Your task to perform on an android device: Search for hotels in Miami Image 0: 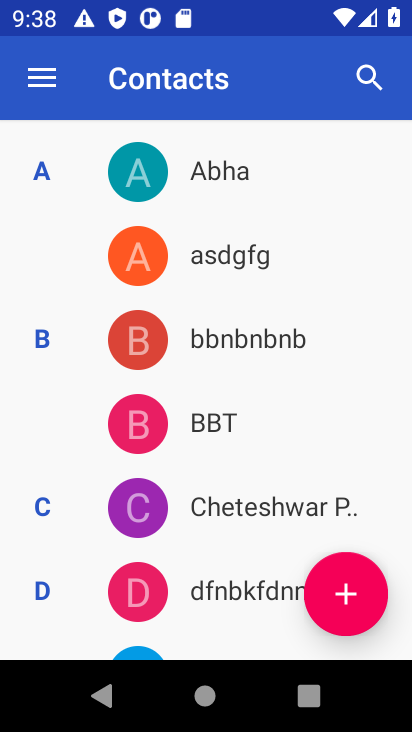
Step 0: press home button
Your task to perform on an android device: Search for hotels in Miami Image 1: 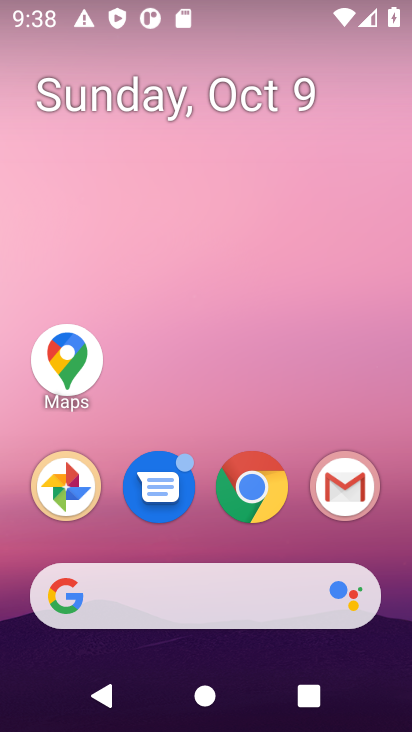
Step 1: drag from (198, 584) to (188, 131)
Your task to perform on an android device: Search for hotels in Miami Image 2: 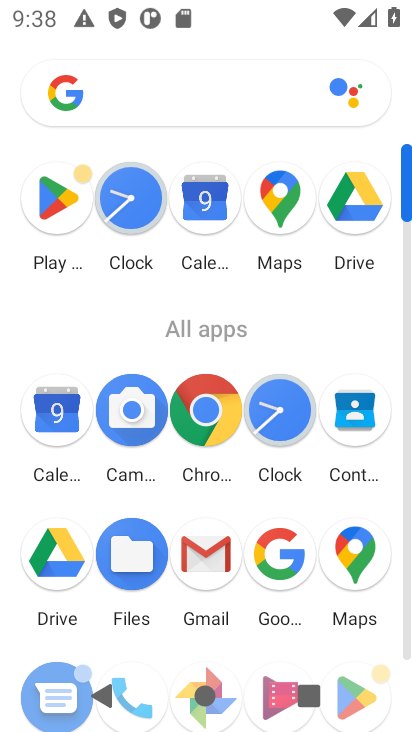
Step 2: click (295, 539)
Your task to perform on an android device: Search for hotels in Miami Image 3: 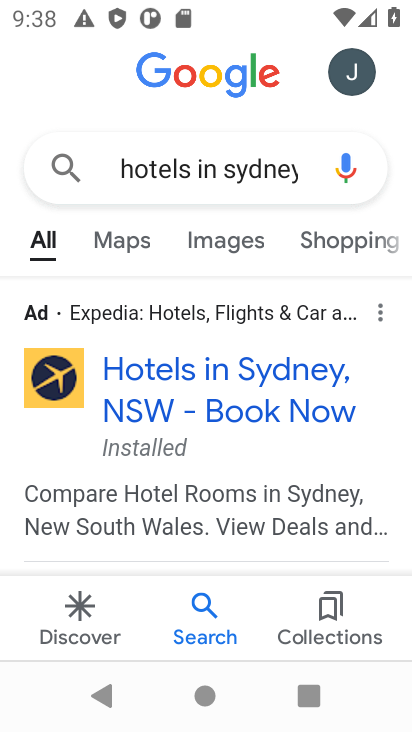
Step 3: click (246, 180)
Your task to perform on an android device: Search for hotels in Miami Image 4: 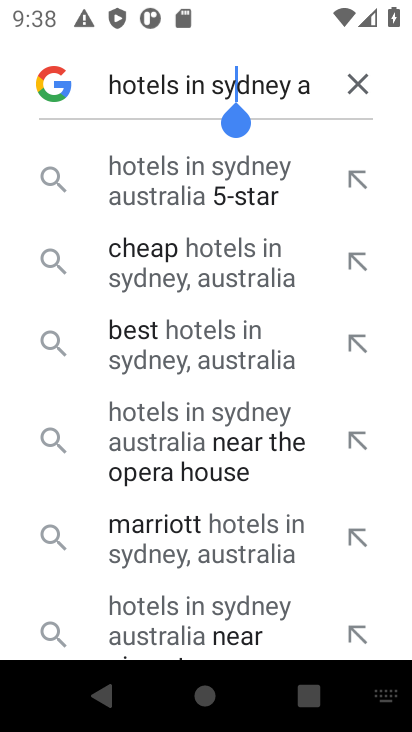
Step 4: click (358, 78)
Your task to perform on an android device: Search for hotels in Miami Image 5: 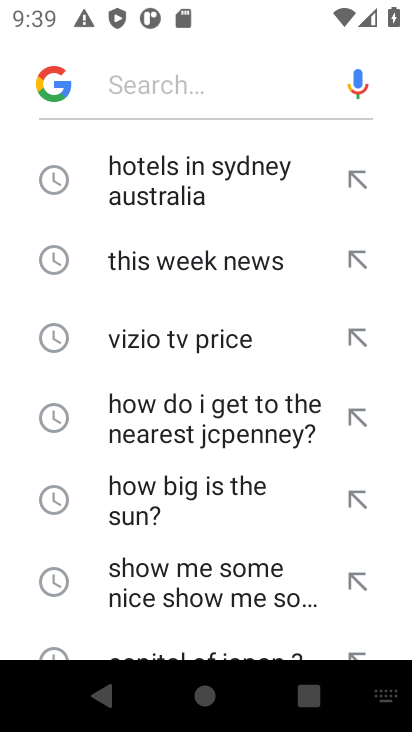
Step 5: type "hotels in Miami"
Your task to perform on an android device: Search for hotels in Miami Image 6: 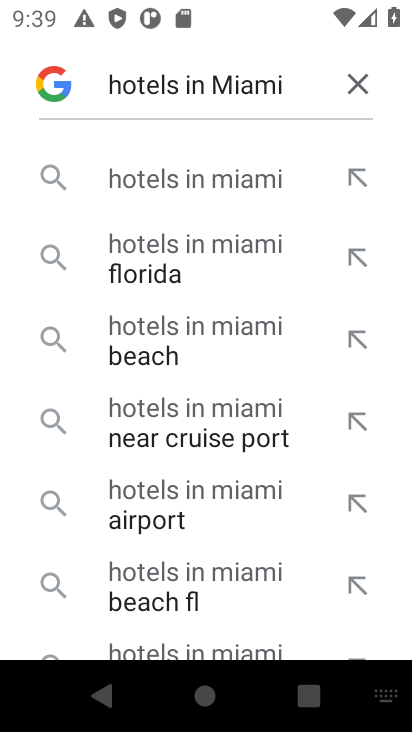
Step 6: click (213, 168)
Your task to perform on an android device: Search for hotels in Miami Image 7: 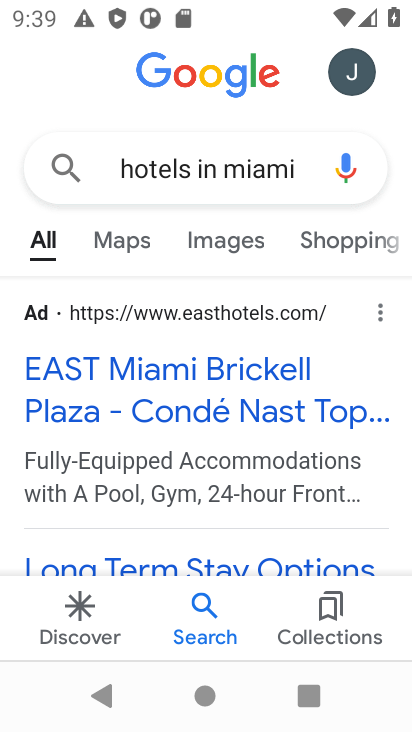
Step 7: task complete